Your task to perform on an android device: Search for logitech g933 on target.com, select the first entry, and add it to the cart. Image 0: 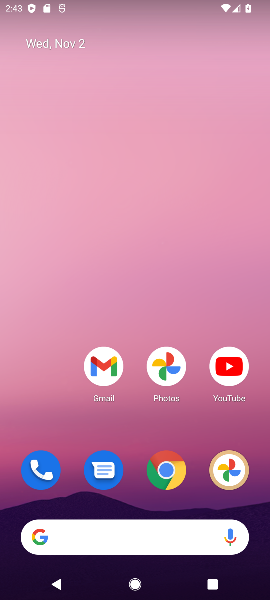
Step 0: drag from (104, 506) to (113, 117)
Your task to perform on an android device: Search for logitech g933 on target.com, select the first entry, and add it to the cart. Image 1: 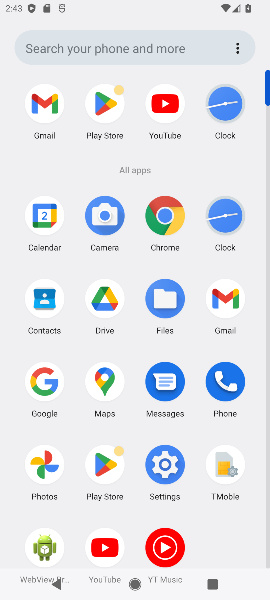
Step 1: click (48, 384)
Your task to perform on an android device: Search for logitech g933 on target.com, select the first entry, and add it to the cart. Image 2: 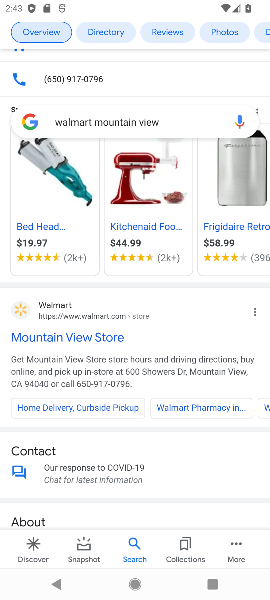
Step 2: drag from (123, 83) to (84, 502)
Your task to perform on an android device: Search for logitech g933 on target.com, select the first entry, and add it to the cart. Image 3: 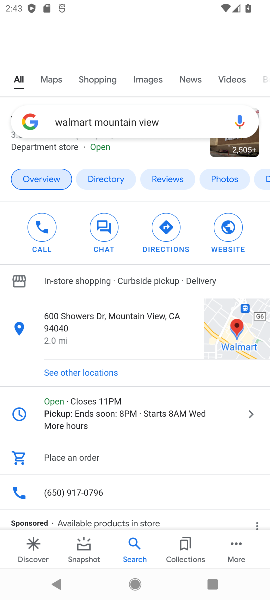
Step 3: click (92, 121)
Your task to perform on an android device: Search for logitech g933 on target.com, select the first entry, and add it to the cart. Image 4: 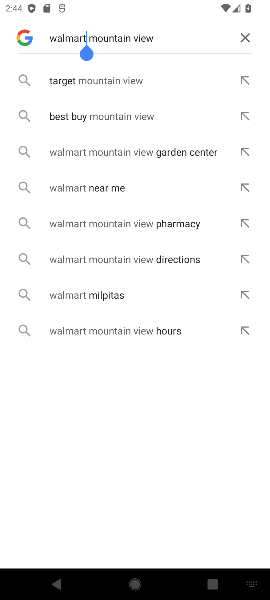
Step 4: click (240, 33)
Your task to perform on an android device: Search for logitech g933 on target.com, select the first entry, and add it to the cart. Image 5: 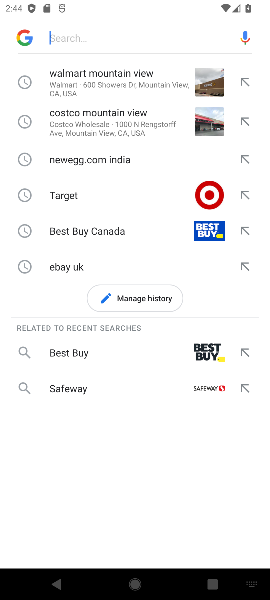
Step 5: click (88, 36)
Your task to perform on an android device: Search for logitech g933 on target.com, select the first entry, and add it to the cart. Image 6: 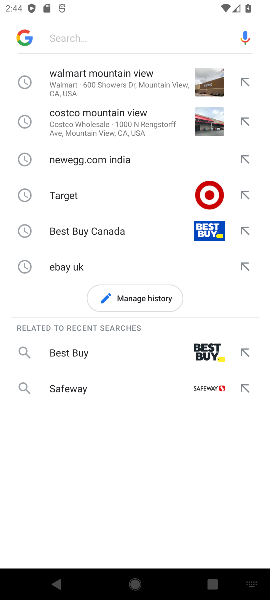
Step 6: type "target "
Your task to perform on an android device: Search for logitech g933 on target.com, select the first entry, and add it to the cart. Image 7: 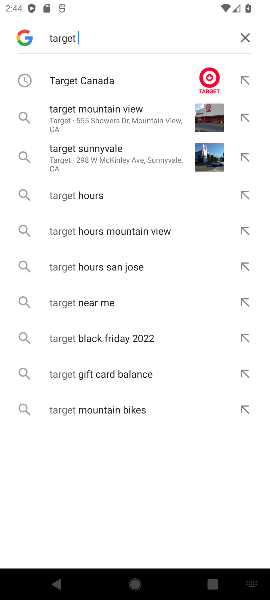
Step 7: click (70, 77)
Your task to perform on an android device: Search for logitech g933 on target.com, select the first entry, and add it to the cart. Image 8: 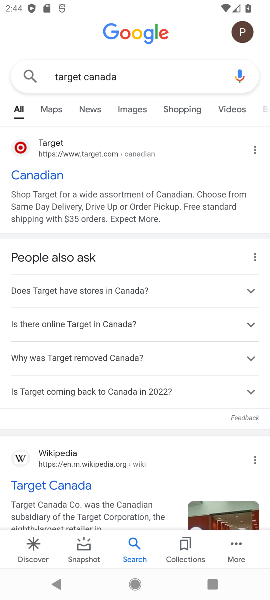
Step 8: click (23, 148)
Your task to perform on an android device: Search for logitech g933 on target.com, select the first entry, and add it to the cart. Image 9: 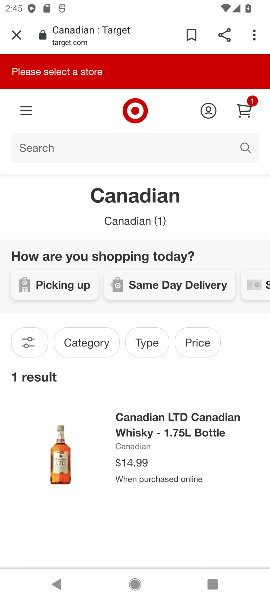
Step 9: click (103, 146)
Your task to perform on an android device: Search for logitech g933 on target.com, select the first entry, and add it to the cart. Image 10: 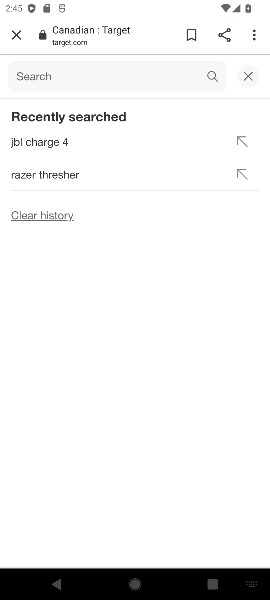
Step 10: click (118, 64)
Your task to perform on an android device: Search for logitech g933 on target.com, select the first entry, and add it to the cart. Image 11: 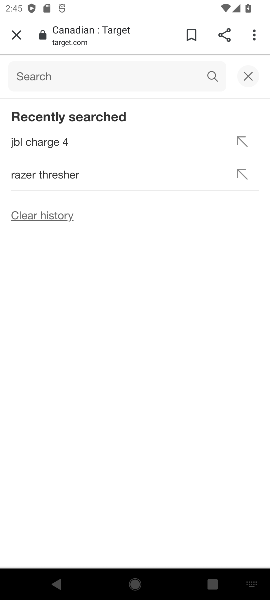
Step 11: click (105, 77)
Your task to perform on an android device: Search for logitech g933 on target.com, select the first entry, and add it to the cart. Image 12: 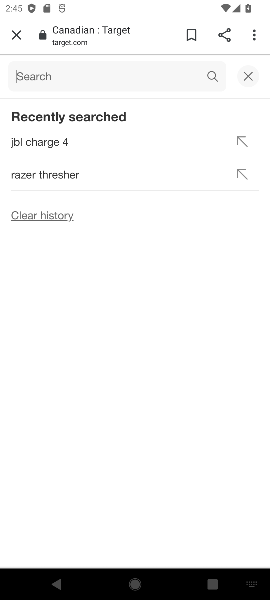
Step 12: type " logitech g933  "
Your task to perform on an android device: Search for logitech g933 on target.com, select the first entry, and add it to the cart. Image 13: 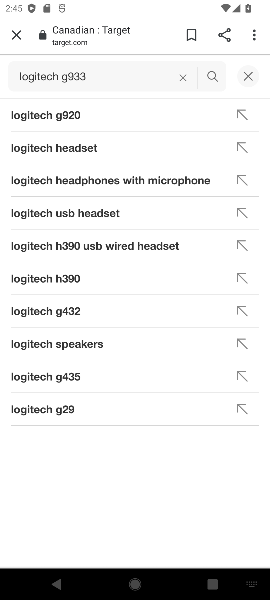
Step 13: click (74, 116)
Your task to perform on an android device: Search for logitech g933 on target.com, select the first entry, and add it to the cart. Image 14: 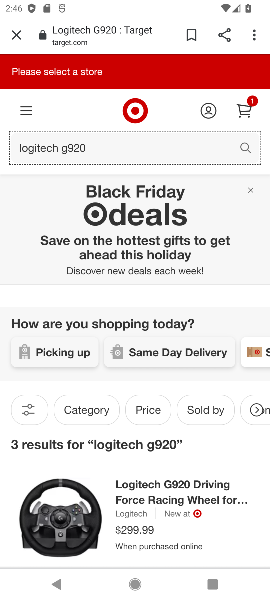
Step 14: click (171, 484)
Your task to perform on an android device: Search for logitech g933 on target.com, select the first entry, and add it to the cart. Image 15: 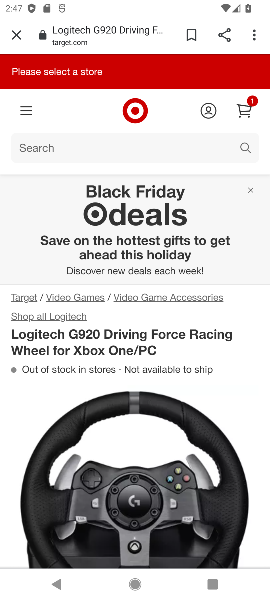
Step 15: drag from (105, 426) to (175, 193)
Your task to perform on an android device: Search for logitech g933 on target.com, select the first entry, and add it to the cart. Image 16: 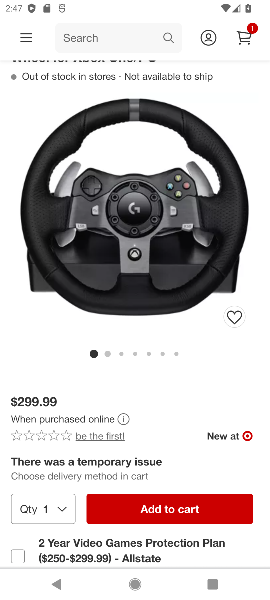
Step 16: click (139, 500)
Your task to perform on an android device: Search for logitech g933 on target.com, select the first entry, and add it to the cart. Image 17: 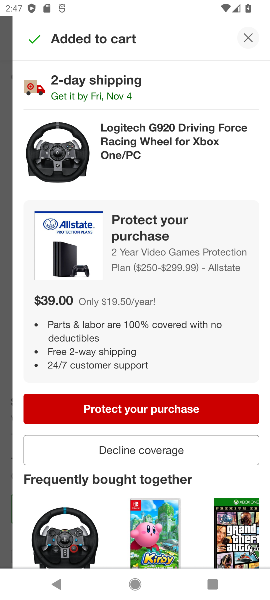
Step 17: task complete